Your task to perform on an android device: Search for seafood restaurants on Google Maps Image 0: 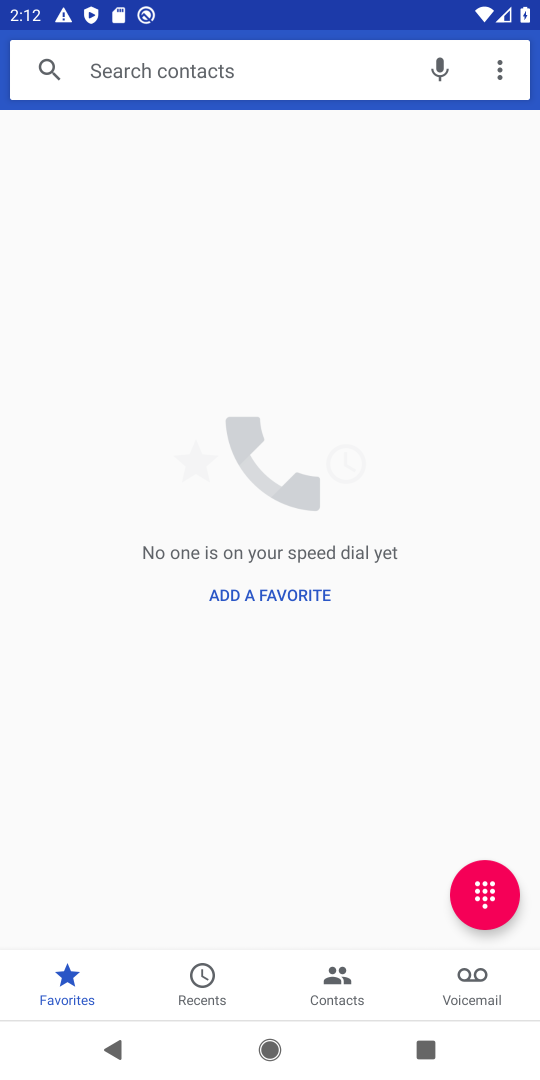
Step 0: press back button
Your task to perform on an android device: Search for seafood restaurants on Google Maps Image 1: 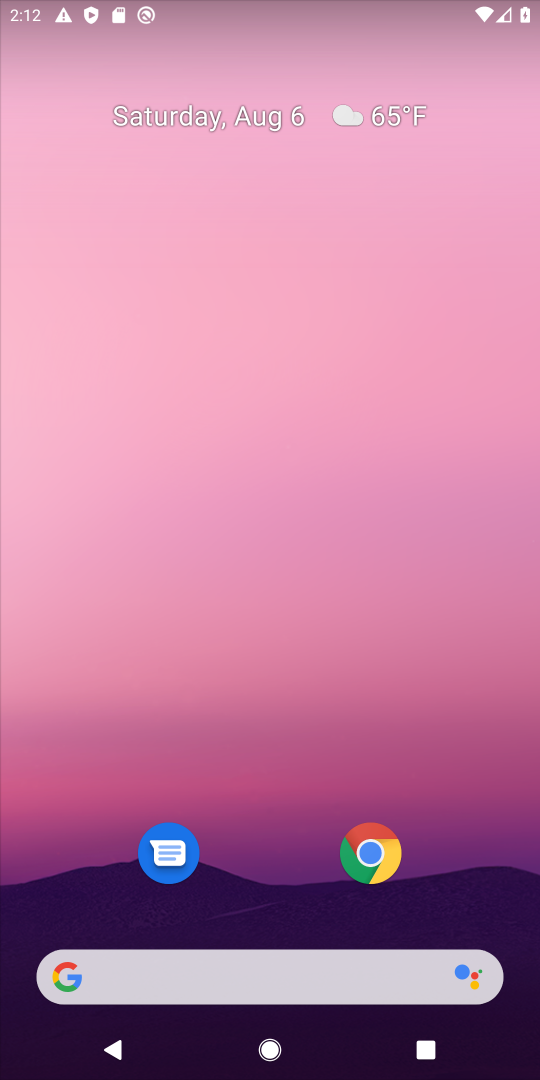
Step 1: drag from (297, 700) to (324, 145)
Your task to perform on an android device: Search for seafood restaurants on Google Maps Image 2: 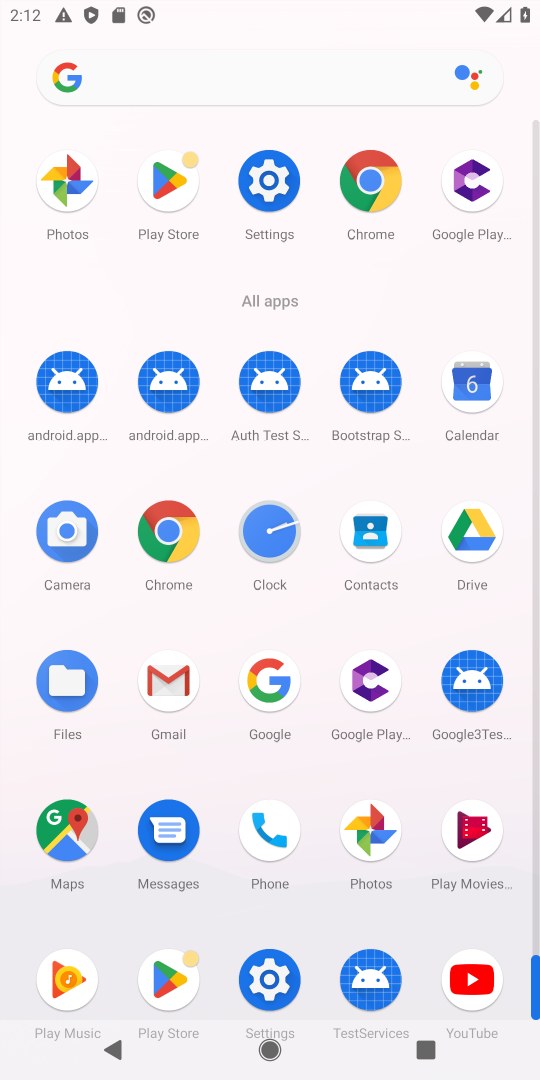
Step 2: click (57, 850)
Your task to perform on an android device: Search for seafood restaurants on Google Maps Image 3: 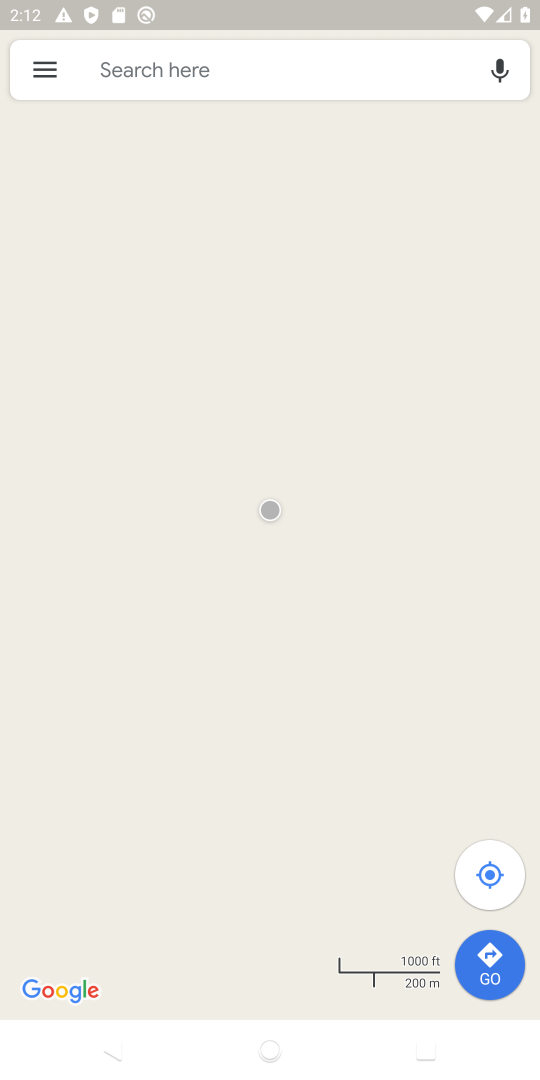
Step 3: click (184, 79)
Your task to perform on an android device: Search for seafood restaurants on Google Maps Image 4: 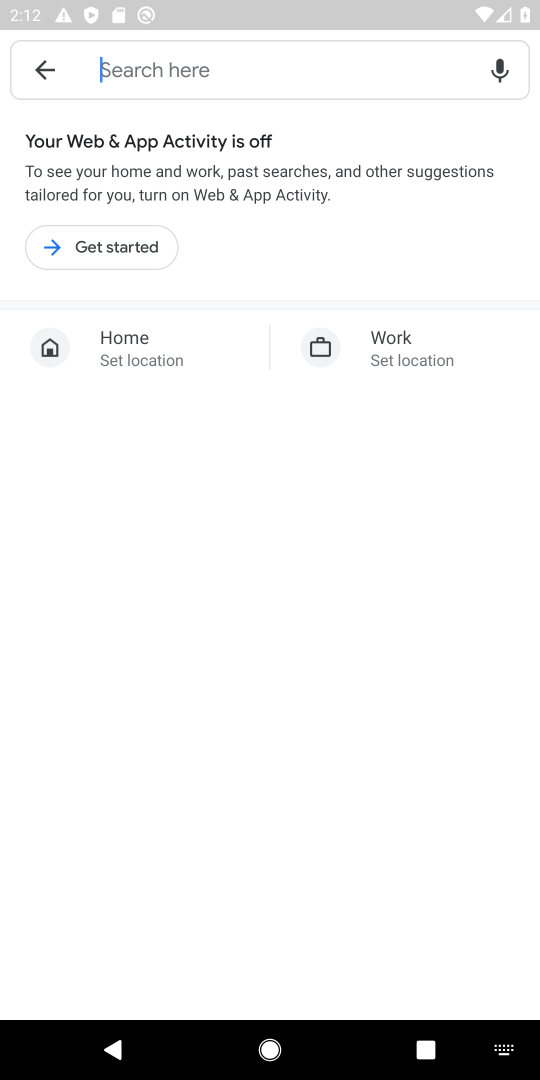
Step 4: click (274, 76)
Your task to perform on an android device: Search for seafood restaurants on Google Maps Image 5: 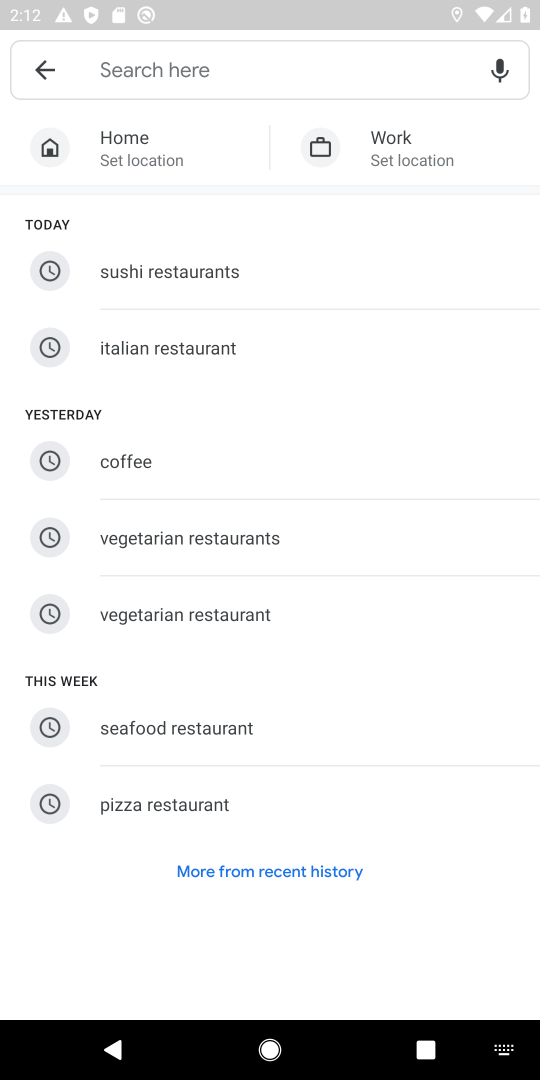
Step 5: type "seafood "
Your task to perform on an android device: Search for seafood restaurants on Google Maps Image 6: 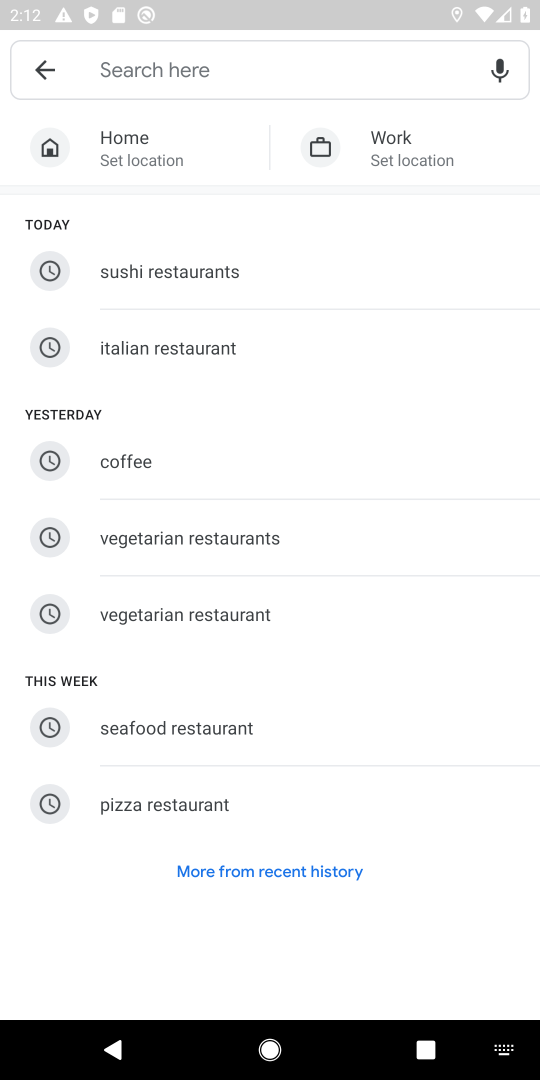
Step 6: click (201, 724)
Your task to perform on an android device: Search for seafood restaurants on Google Maps Image 7: 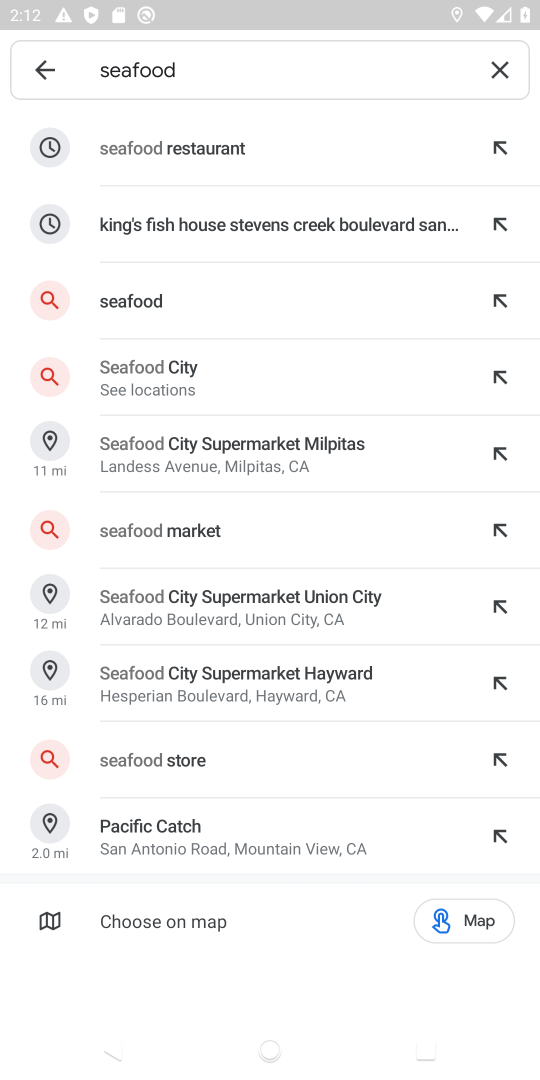
Step 7: click (168, 141)
Your task to perform on an android device: Search for seafood restaurants on Google Maps Image 8: 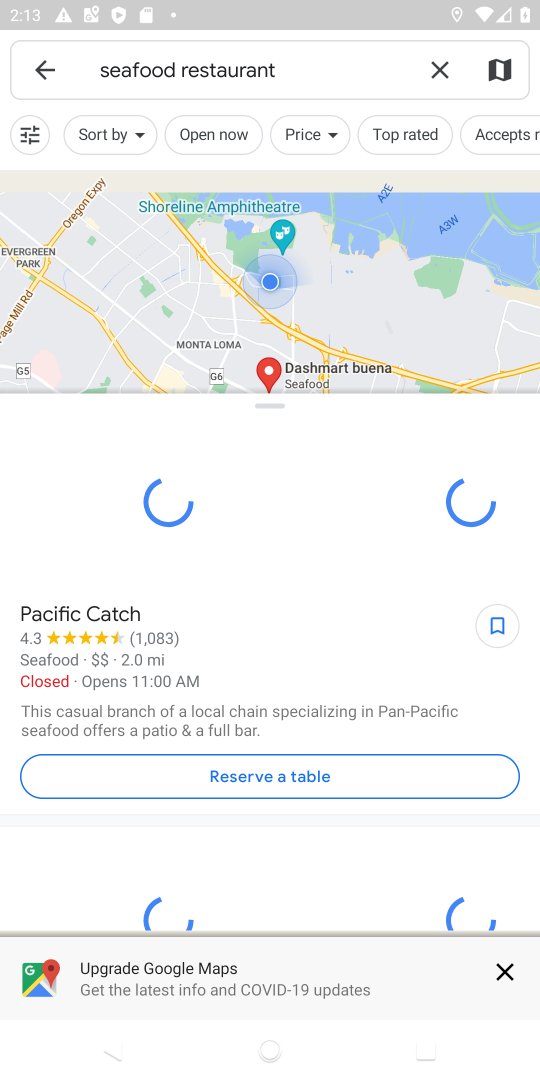
Step 8: task complete